Your task to perform on an android device: Open display settings Image 0: 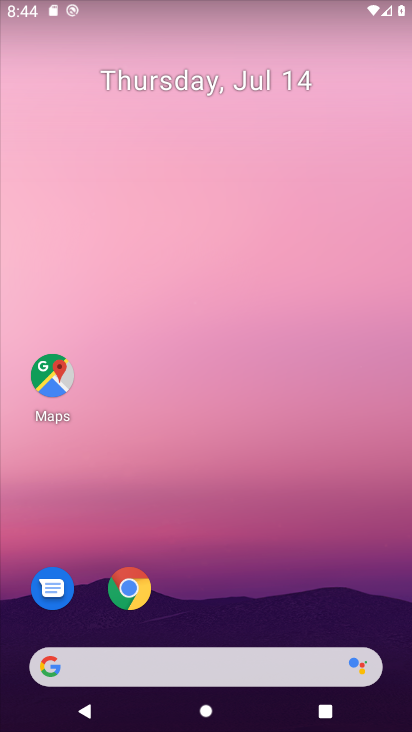
Step 0: drag from (342, 588) to (365, 119)
Your task to perform on an android device: Open display settings Image 1: 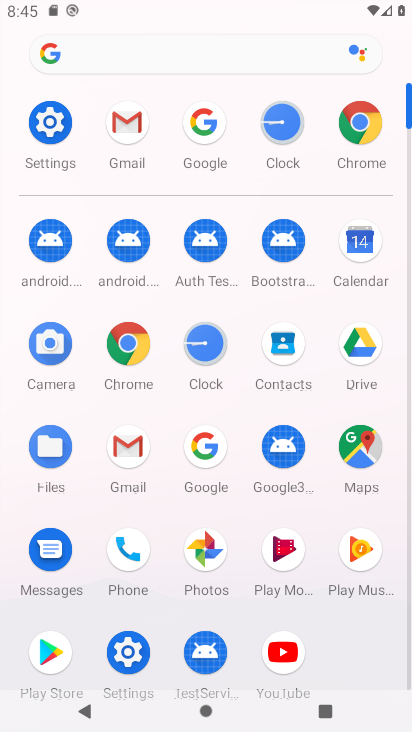
Step 1: click (62, 122)
Your task to perform on an android device: Open display settings Image 2: 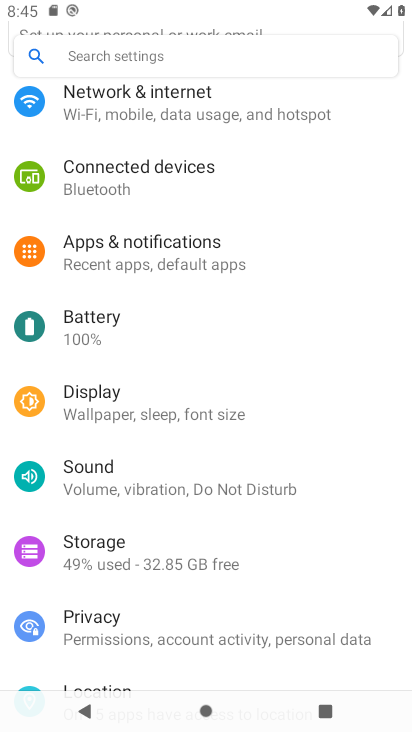
Step 2: drag from (350, 485) to (374, 253)
Your task to perform on an android device: Open display settings Image 3: 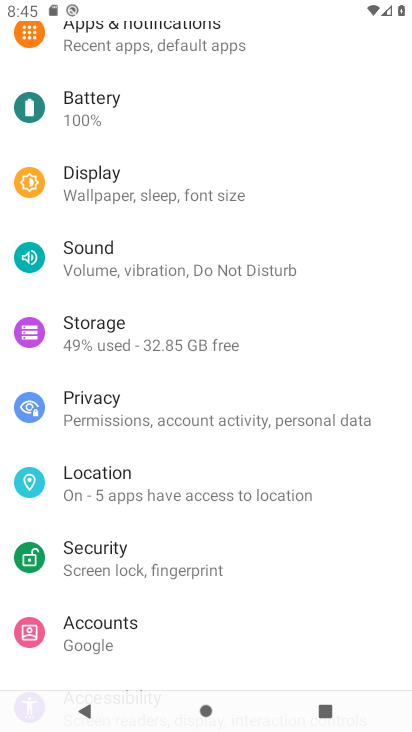
Step 3: drag from (371, 504) to (366, 361)
Your task to perform on an android device: Open display settings Image 4: 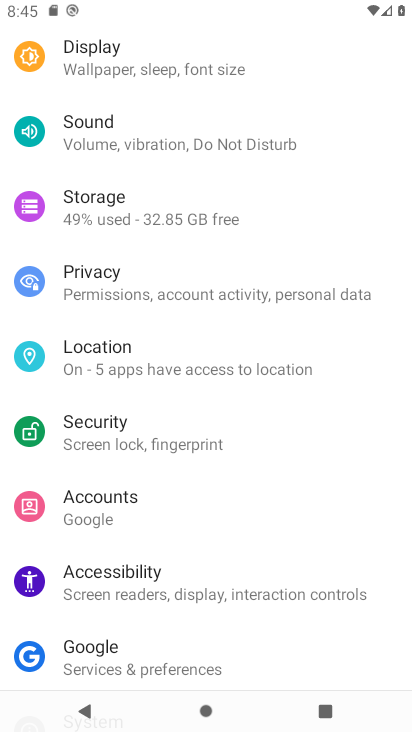
Step 4: drag from (356, 516) to (355, 393)
Your task to perform on an android device: Open display settings Image 5: 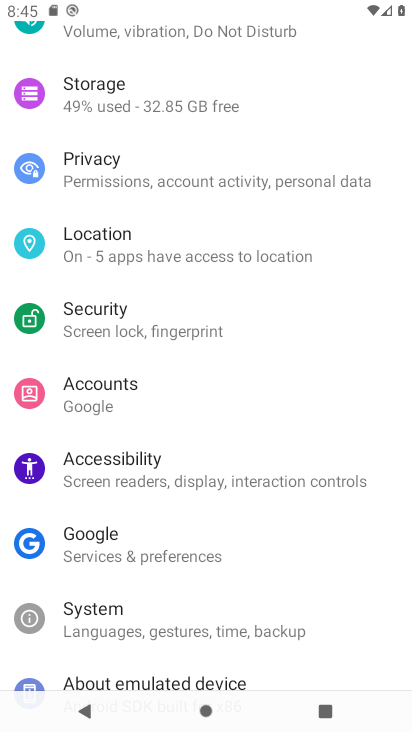
Step 5: drag from (356, 526) to (373, 388)
Your task to perform on an android device: Open display settings Image 6: 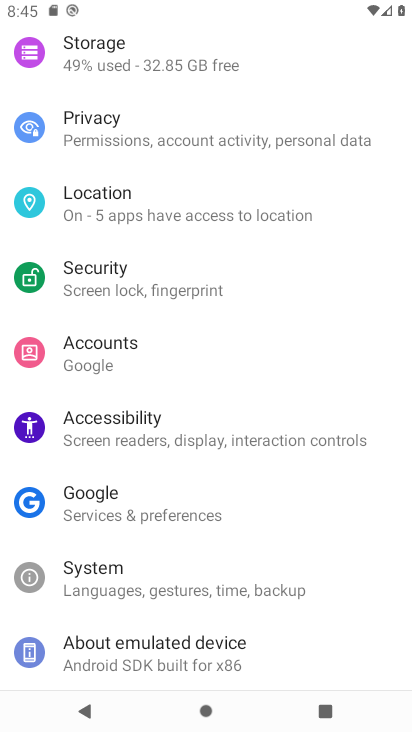
Step 6: drag from (373, 327) to (373, 404)
Your task to perform on an android device: Open display settings Image 7: 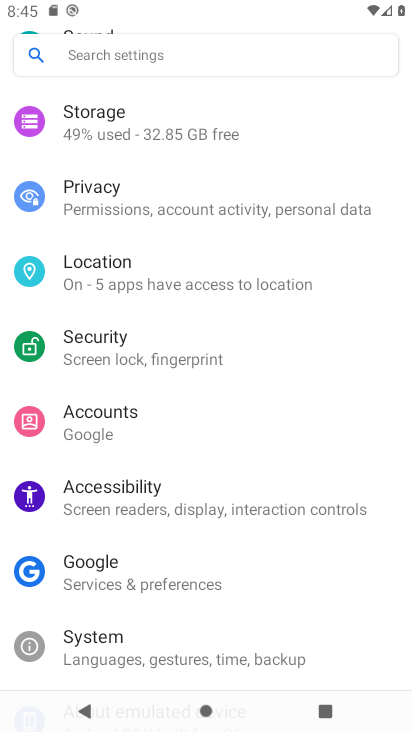
Step 7: drag from (380, 299) to (377, 377)
Your task to perform on an android device: Open display settings Image 8: 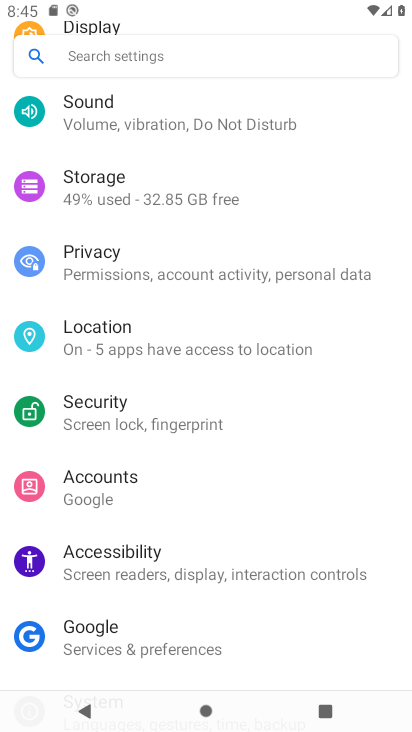
Step 8: drag from (370, 323) to (370, 375)
Your task to perform on an android device: Open display settings Image 9: 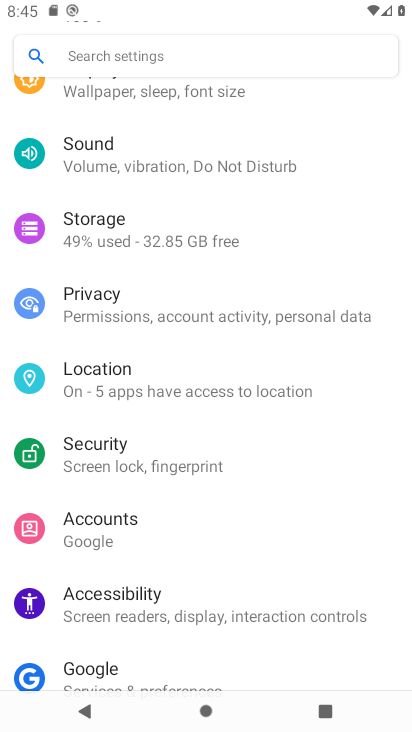
Step 9: drag from (370, 276) to (370, 357)
Your task to perform on an android device: Open display settings Image 10: 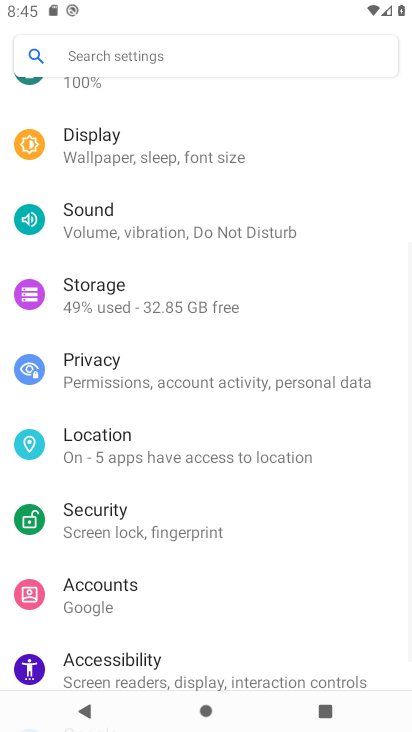
Step 10: drag from (371, 272) to (363, 367)
Your task to perform on an android device: Open display settings Image 11: 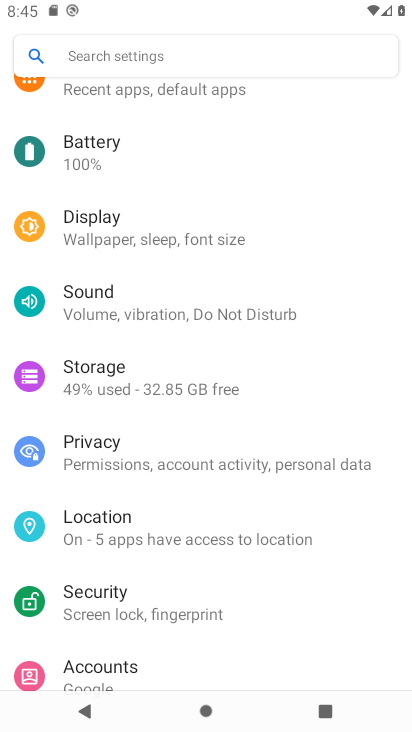
Step 11: drag from (366, 272) to (366, 357)
Your task to perform on an android device: Open display settings Image 12: 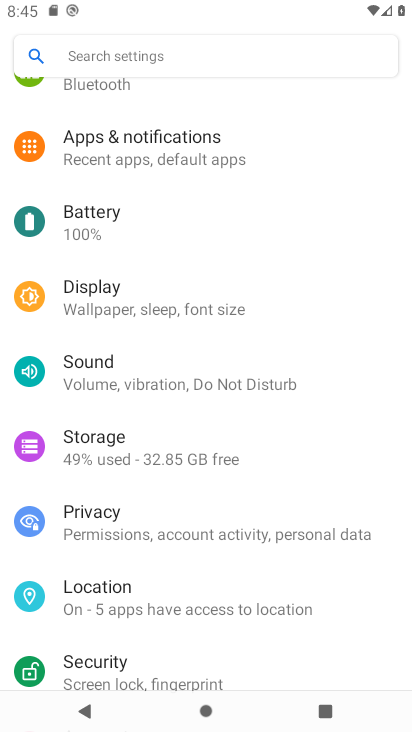
Step 12: drag from (369, 256) to (356, 367)
Your task to perform on an android device: Open display settings Image 13: 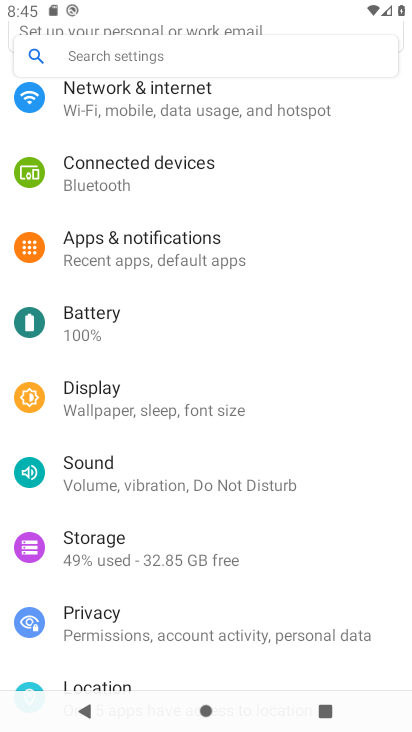
Step 13: drag from (364, 207) to (366, 305)
Your task to perform on an android device: Open display settings Image 14: 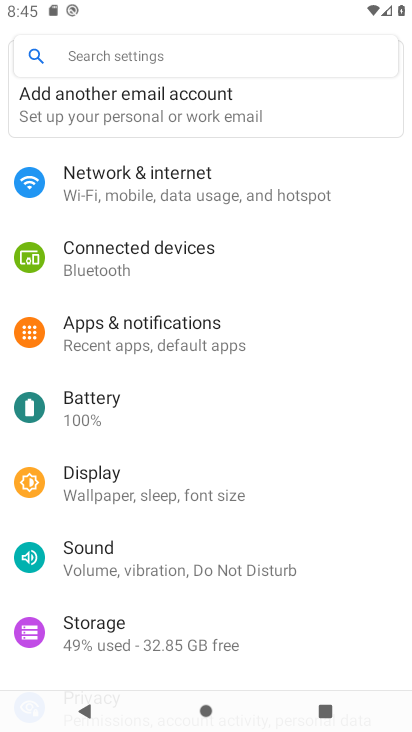
Step 14: drag from (362, 218) to (365, 336)
Your task to perform on an android device: Open display settings Image 15: 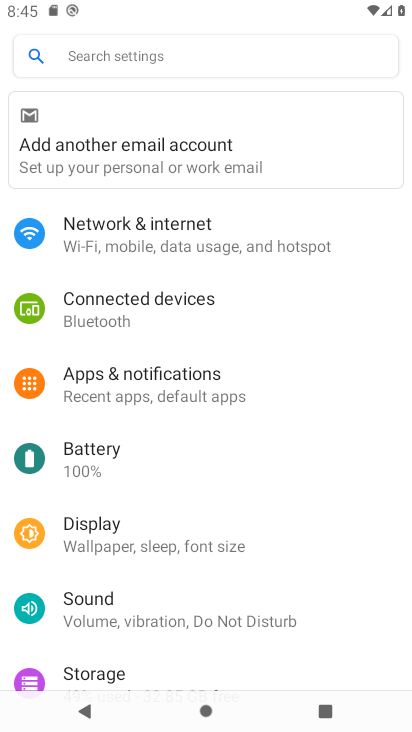
Step 15: click (230, 544)
Your task to perform on an android device: Open display settings Image 16: 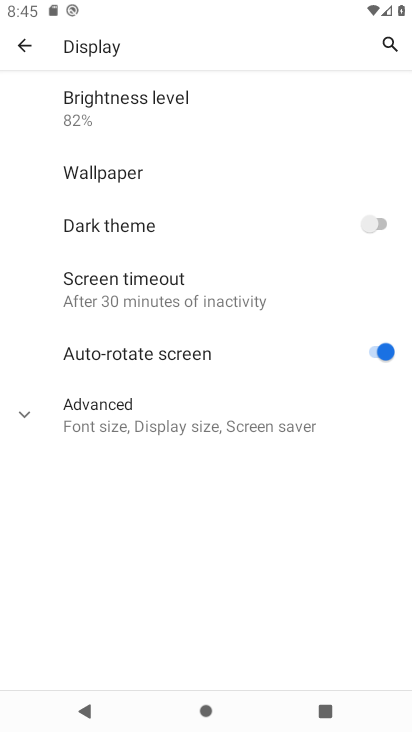
Step 16: click (230, 420)
Your task to perform on an android device: Open display settings Image 17: 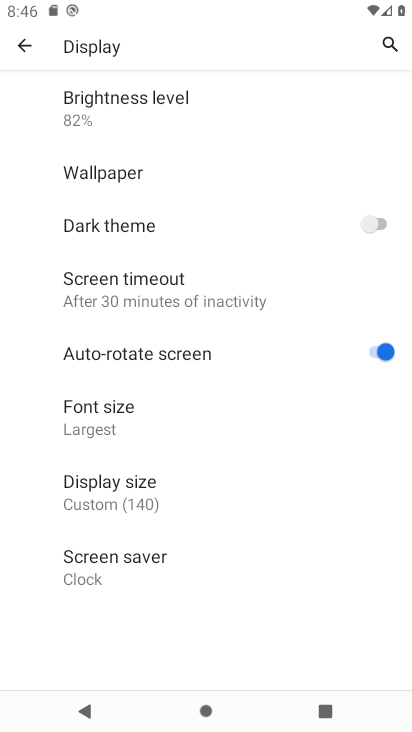
Step 17: task complete